Your task to perform on an android device: What is the news today? Image 0: 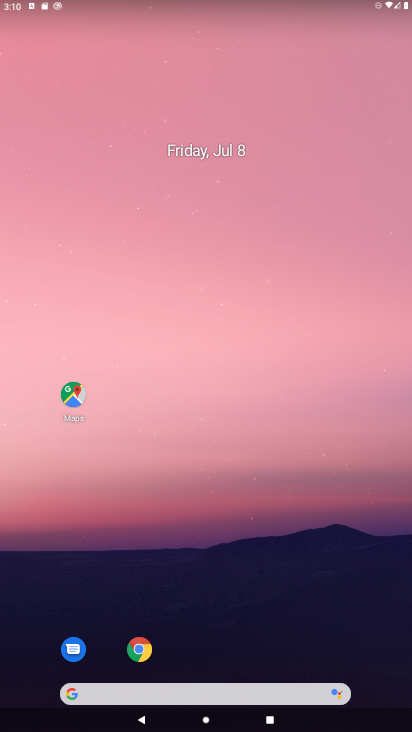
Step 0: drag from (5, 369) to (409, 400)
Your task to perform on an android device: What is the news today? Image 1: 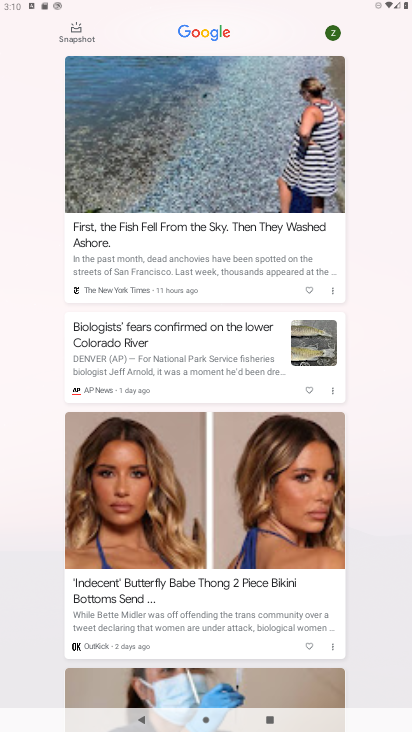
Step 1: task complete